Your task to perform on an android device: turn on translation in the chrome app Image 0: 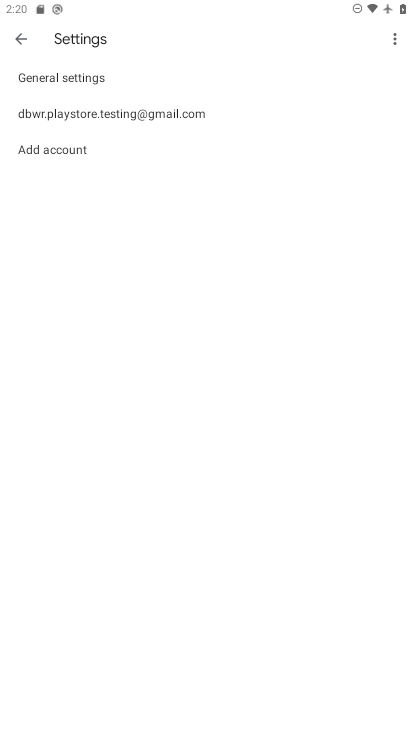
Step 0: press home button
Your task to perform on an android device: turn on translation in the chrome app Image 1: 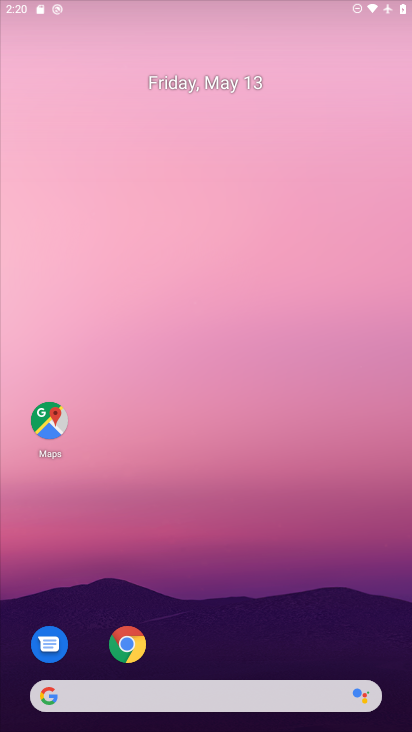
Step 1: drag from (319, 537) to (203, 67)
Your task to perform on an android device: turn on translation in the chrome app Image 2: 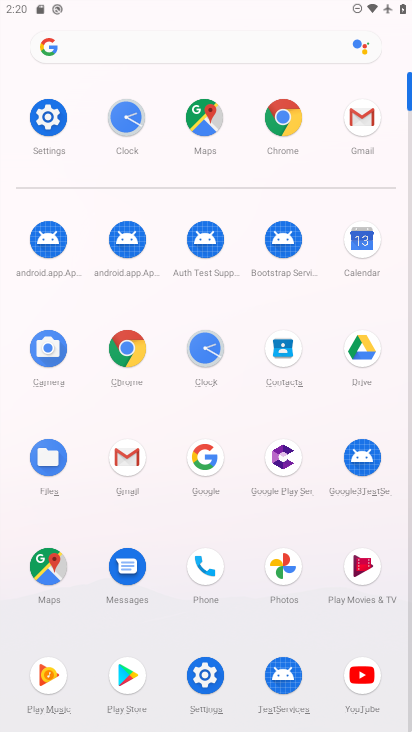
Step 2: click (121, 354)
Your task to perform on an android device: turn on translation in the chrome app Image 3: 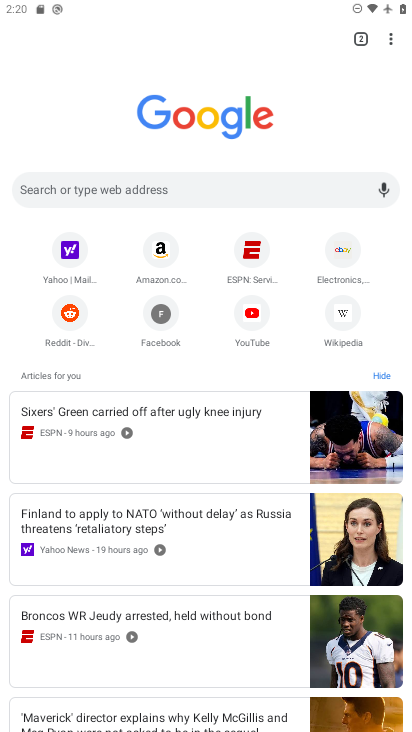
Step 3: click (388, 40)
Your task to perform on an android device: turn on translation in the chrome app Image 4: 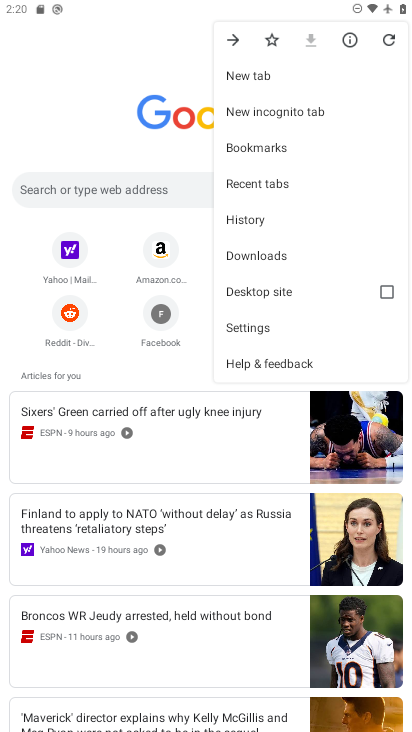
Step 4: click (281, 330)
Your task to perform on an android device: turn on translation in the chrome app Image 5: 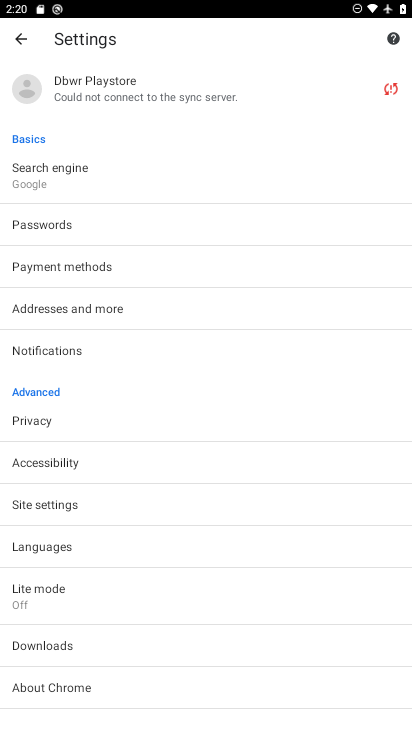
Step 5: click (138, 546)
Your task to perform on an android device: turn on translation in the chrome app Image 6: 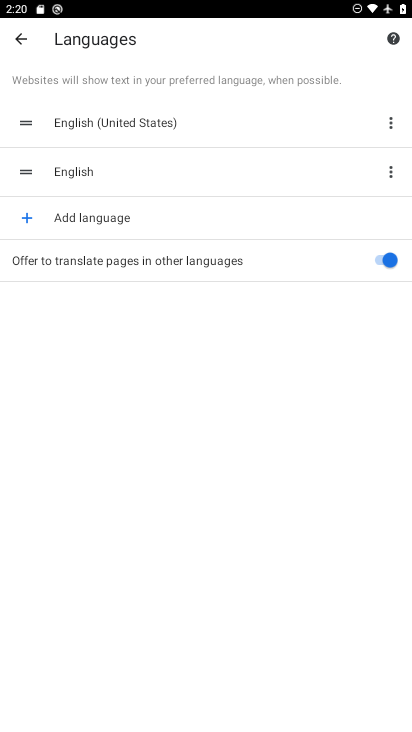
Step 6: task complete